Your task to perform on an android device: Do I have any events this weekend? Image 0: 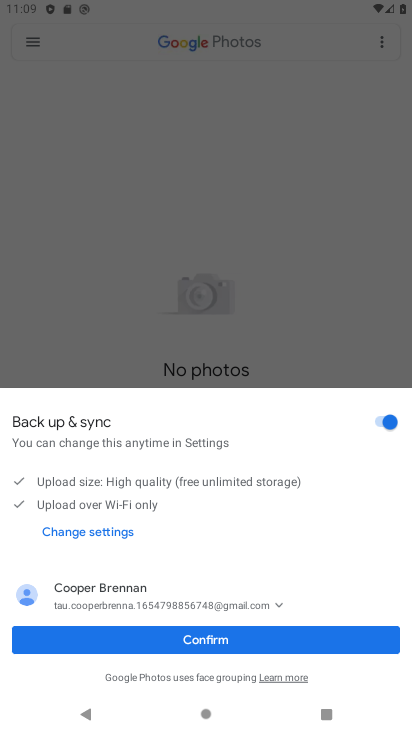
Step 0: click (202, 634)
Your task to perform on an android device: Do I have any events this weekend? Image 1: 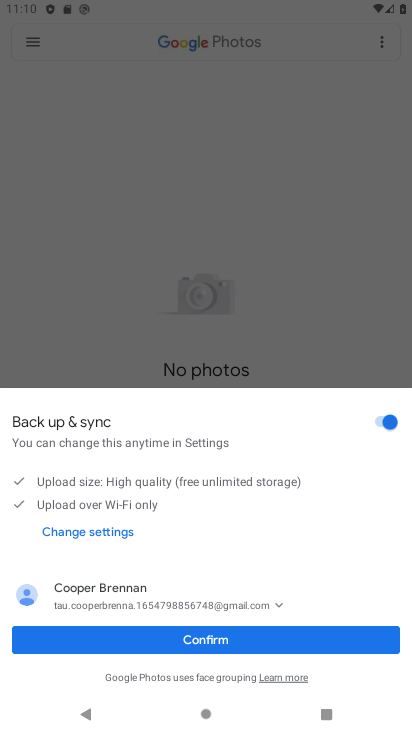
Step 1: click (204, 637)
Your task to perform on an android device: Do I have any events this weekend? Image 2: 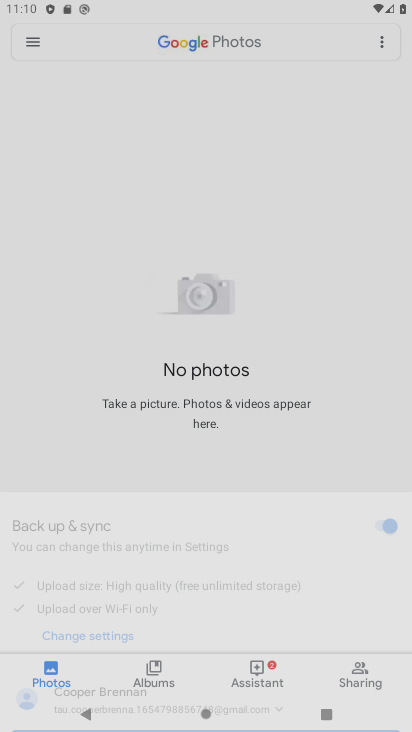
Step 2: click (214, 648)
Your task to perform on an android device: Do I have any events this weekend? Image 3: 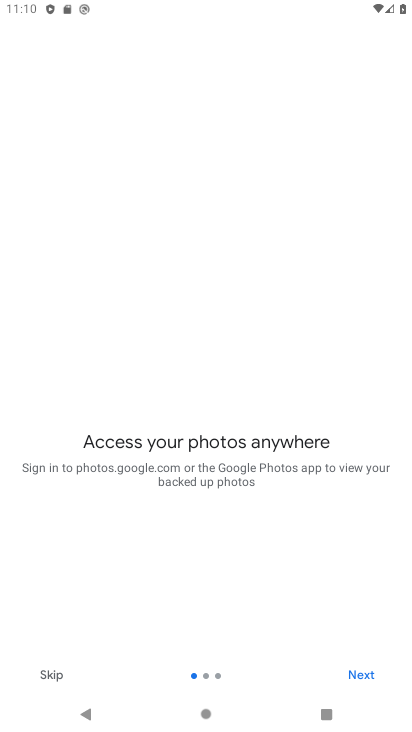
Step 3: click (372, 667)
Your task to perform on an android device: Do I have any events this weekend? Image 4: 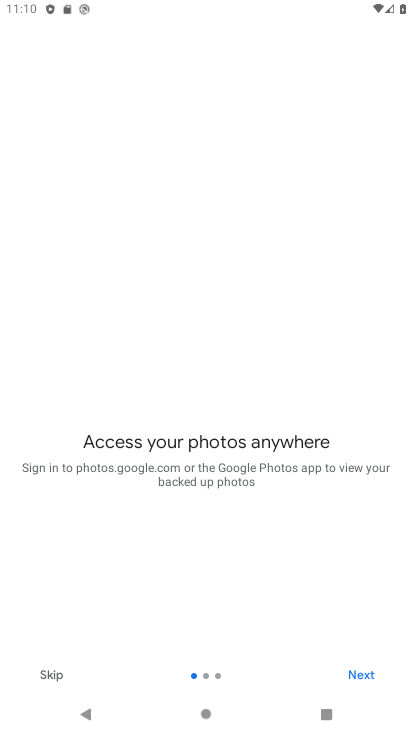
Step 4: click (371, 667)
Your task to perform on an android device: Do I have any events this weekend? Image 5: 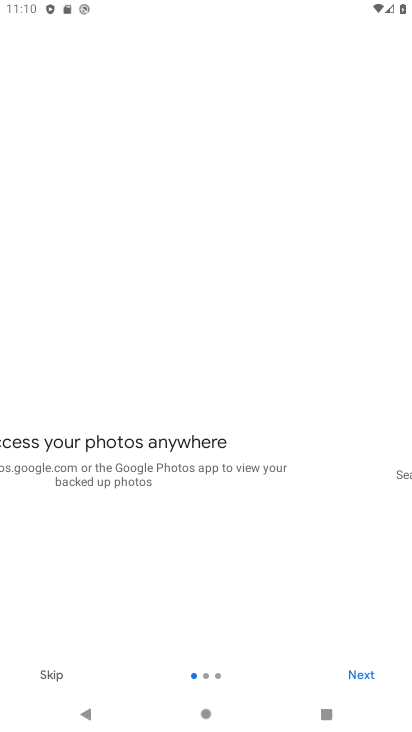
Step 5: click (369, 667)
Your task to perform on an android device: Do I have any events this weekend? Image 6: 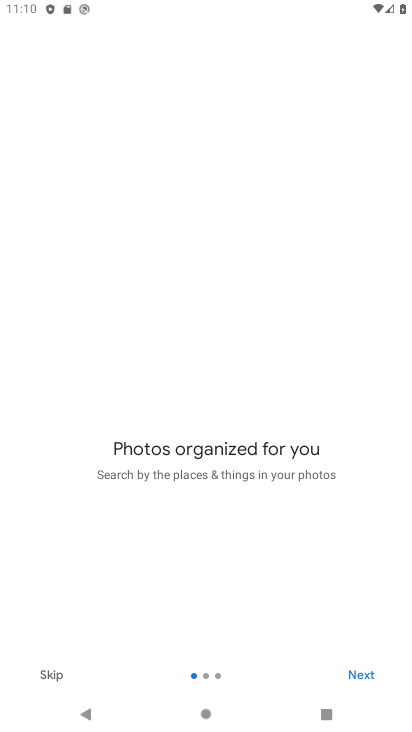
Step 6: click (369, 667)
Your task to perform on an android device: Do I have any events this weekend? Image 7: 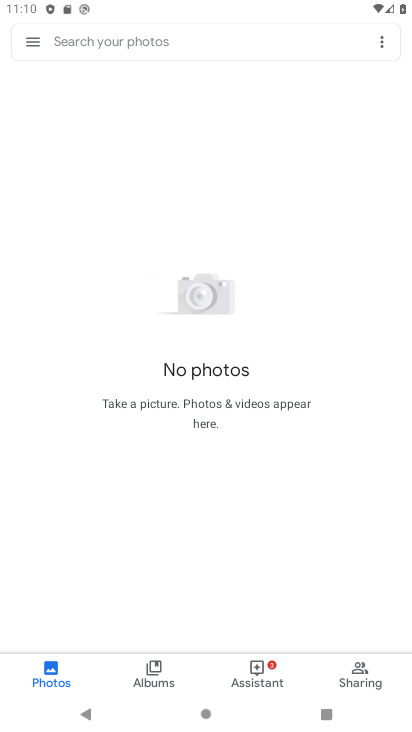
Step 7: press back button
Your task to perform on an android device: Do I have any events this weekend? Image 8: 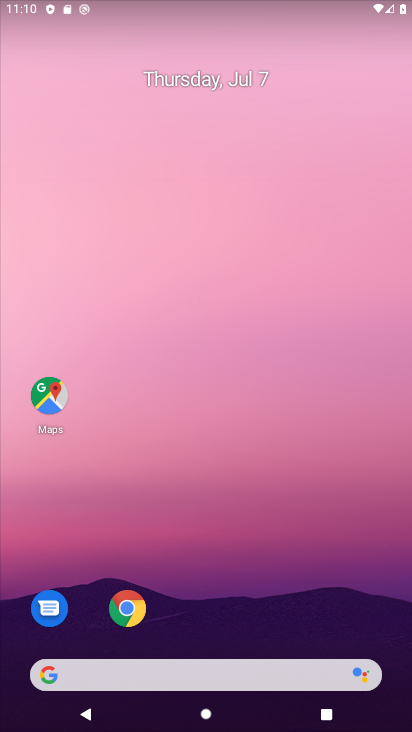
Step 8: drag from (249, 643) to (205, 184)
Your task to perform on an android device: Do I have any events this weekend? Image 9: 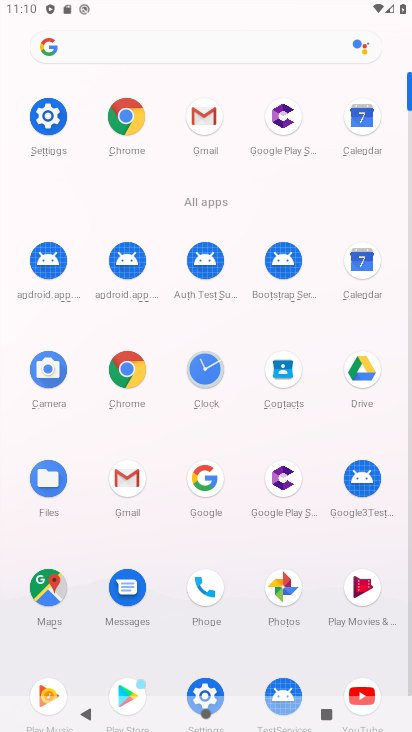
Step 9: click (362, 261)
Your task to perform on an android device: Do I have any events this weekend? Image 10: 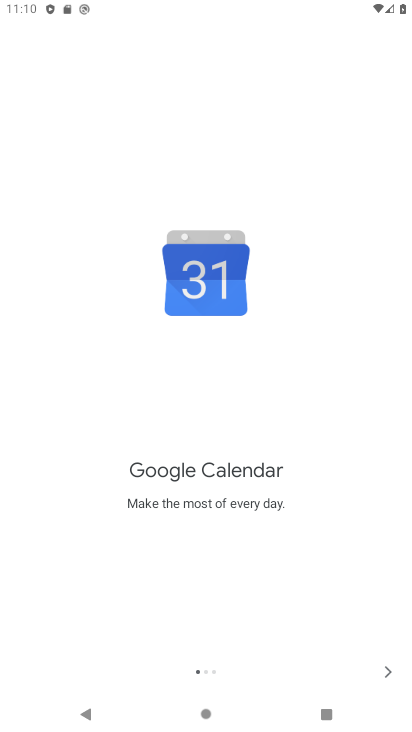
Step 10: click (365, 265)
Your task to perform on an android device: Do I have any events this weekend? Image 11: 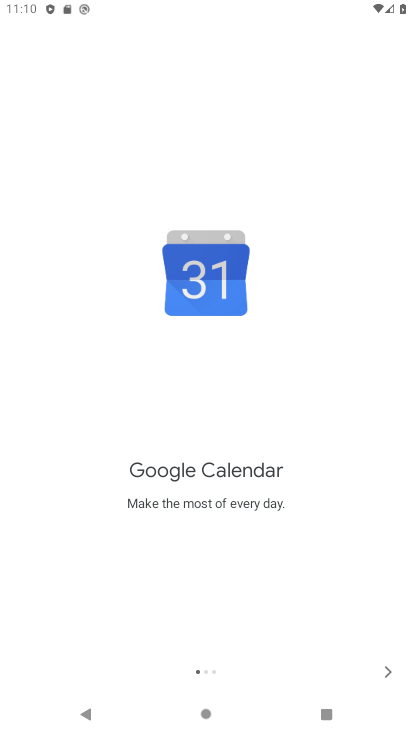
Step 11: click (394, 672)
Your task to perform on an android device: Do I have any events this weekend? Image 12: 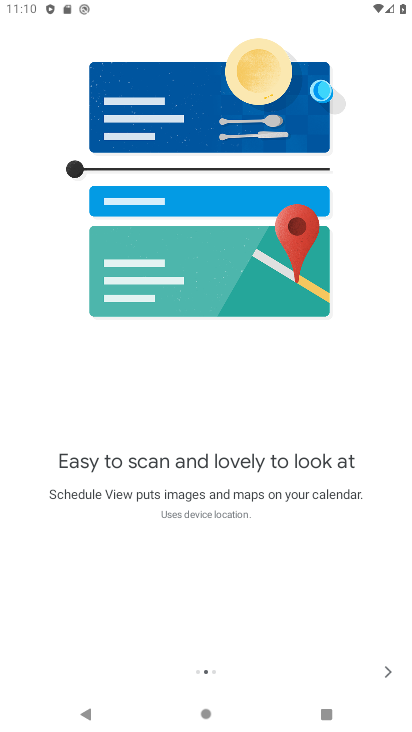
Step 12: click (394, 672)
Your task to perform on an android device: Do I have any events this weekend? Image 13: 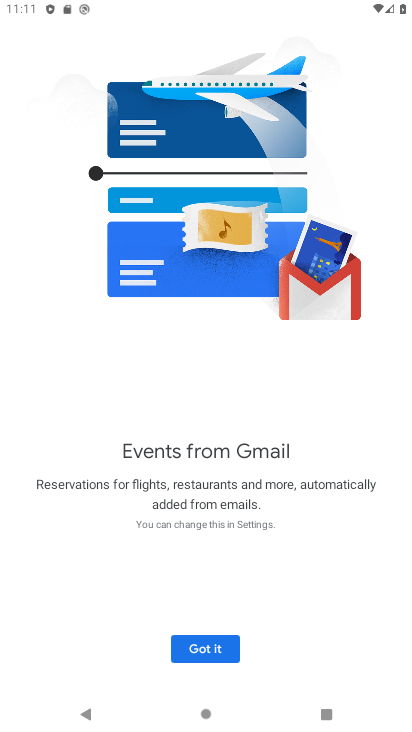
Step 13: click (219, 645)
Your task to perform on an android device: Do I have any events this weekend? Image 14: 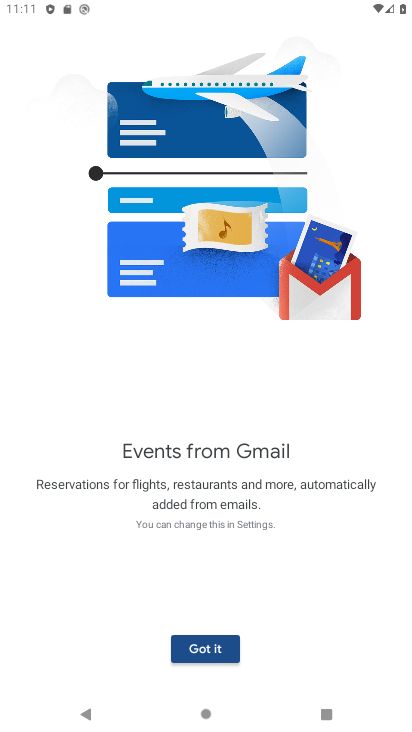
Step 14: click (218, 645)
Your task to perform on an android device: Do I have any events this weekend? Image 15: 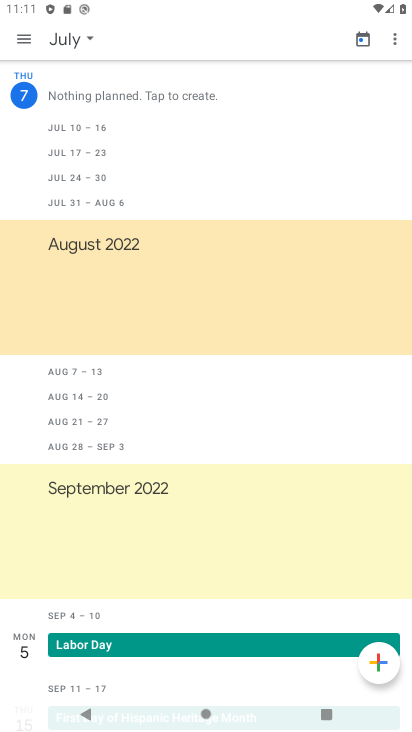
Step 15: task complete